Your task to perform on an android device: Open calendar and show me the first week of next month Image 0: 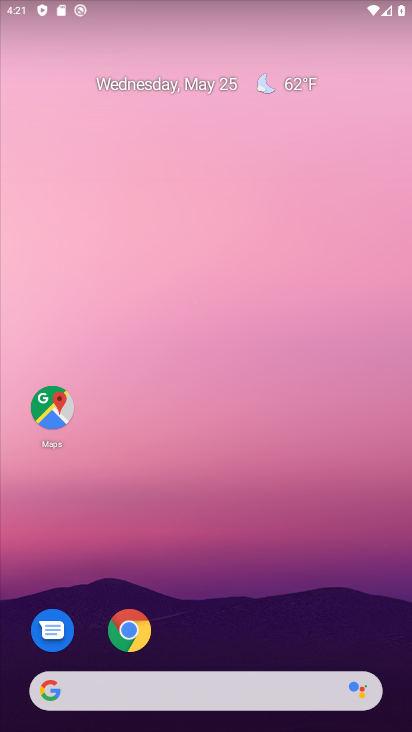
Step 0: drag from (254, 606) to (315, 172)
Your task to perform on an android device: Open calendar and show me the first week of next month Image 1: 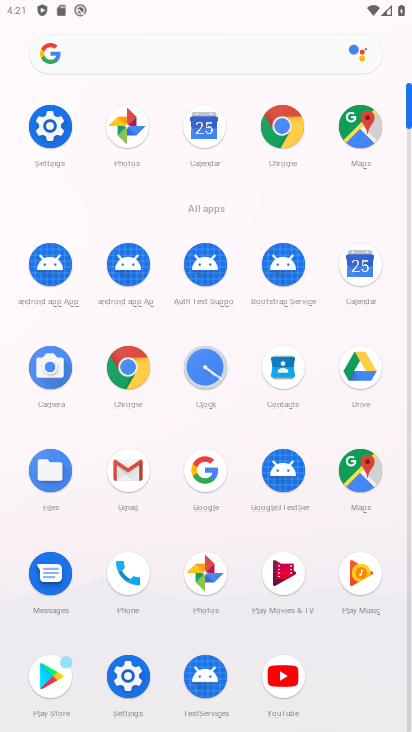
Step 1: click (360, 255)
Your task to perform on an android device: Open calendar and show me the first week of next month Image 2: 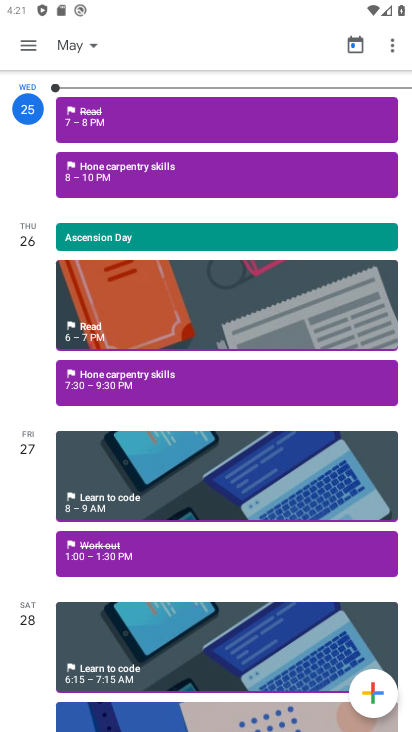
Step 2: click (82, 46)
Your task to perform on an android device: Open calendar and show me the first week of next month Image 3: 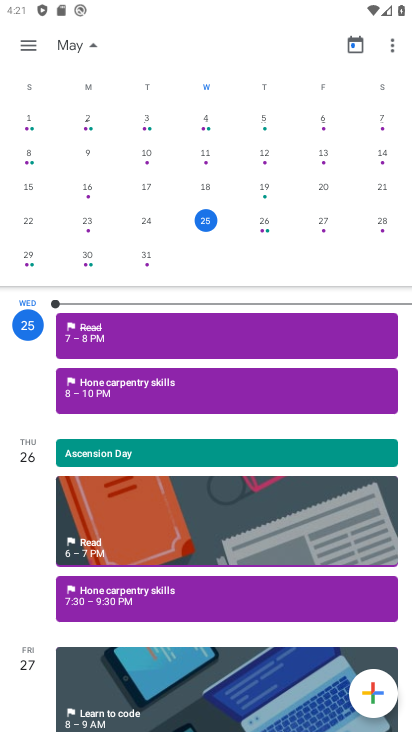
Step 3: drag from (367, 199) to (8, 173)
Your task to perform on an android device: Open calendar and show me the first week of next month Image 4: 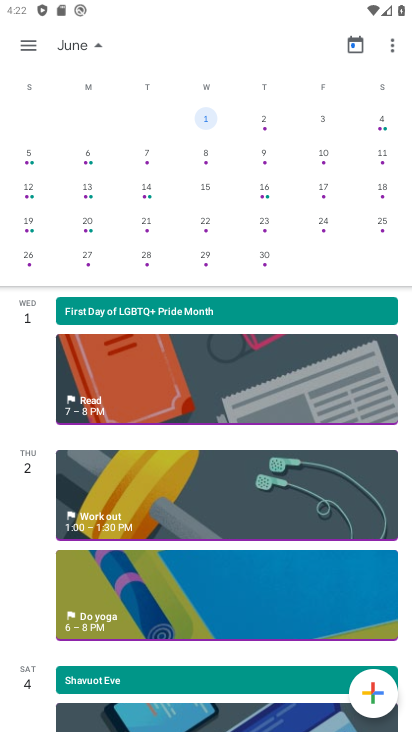
Step 4: click (204, 113)
Your task to perform on an android device: Open calendar and show me the first week of next month Image 5: 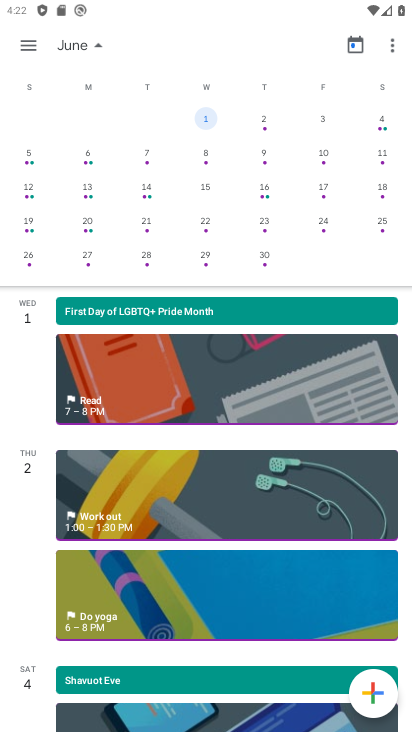
Step 5: task complete